Your task to perform on an android device: manage bookmarks in the chrome app Image 0: 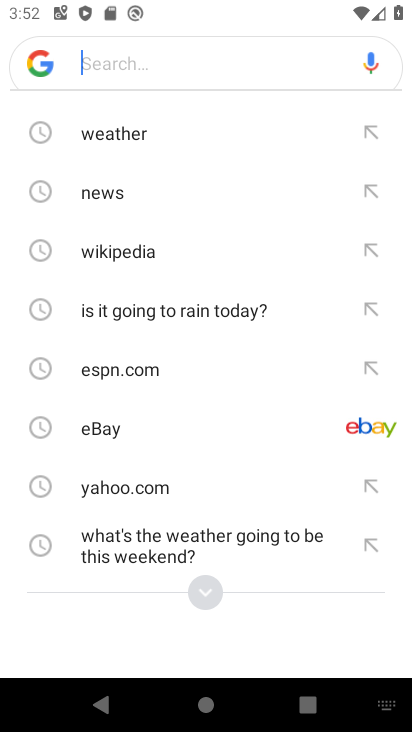
Step 0: drag from (195, 217) to (330, 392)
Your task to perform on an android device: manage bookmarks in the chrome app Image 1: 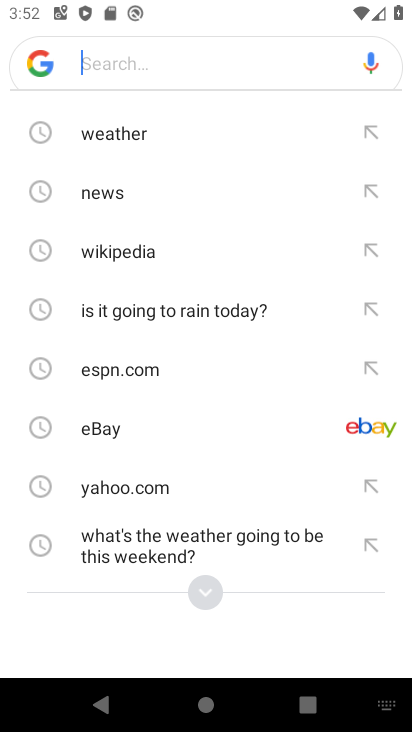
Step 1: press home button
Your task to perform on an android device: manage bookmarks in the chrome app Image 2: 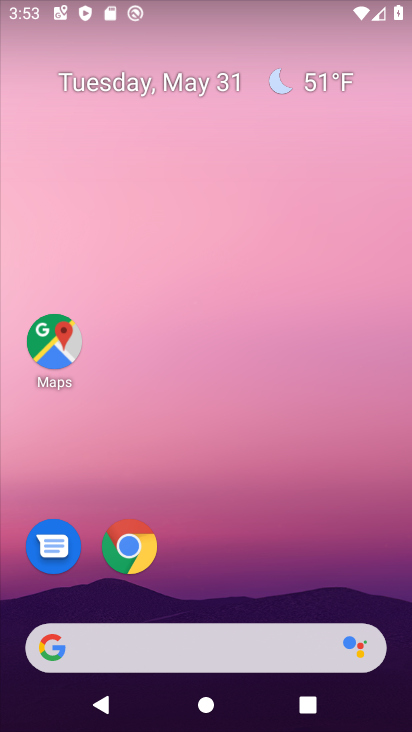
Step 2: click (126, 549)
Your task to perform on an android device: manage bookmarks in the chrome app Image 3: 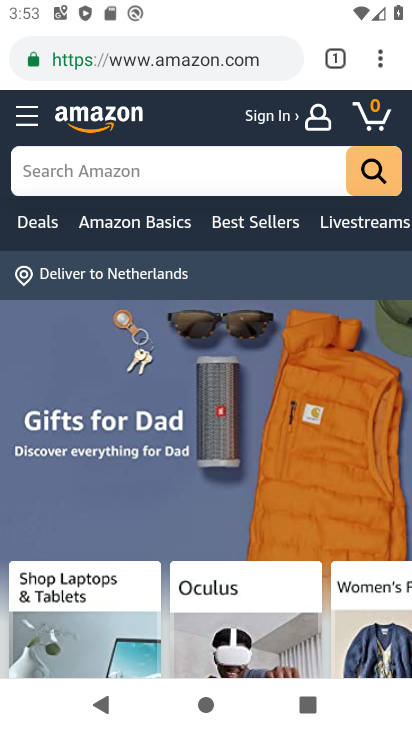
Step 3: click (383, 66)
Your task to perform on an android device: manage bookmarks in the chrome app Image 4: 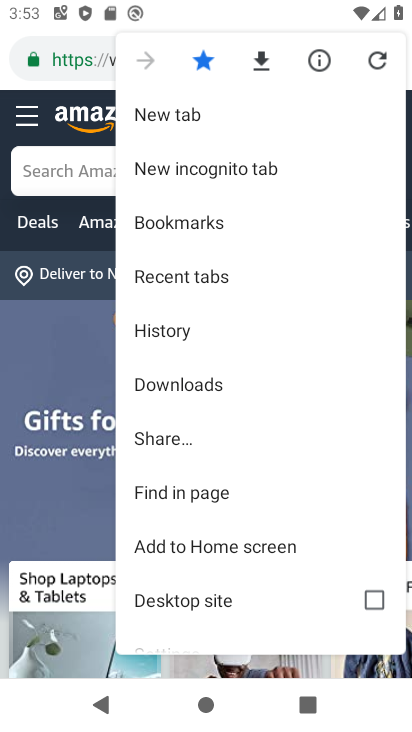
Step 4: click (163, 221)
Your task to perform on an android device: manage bookmarks in the chrome app Image 5: 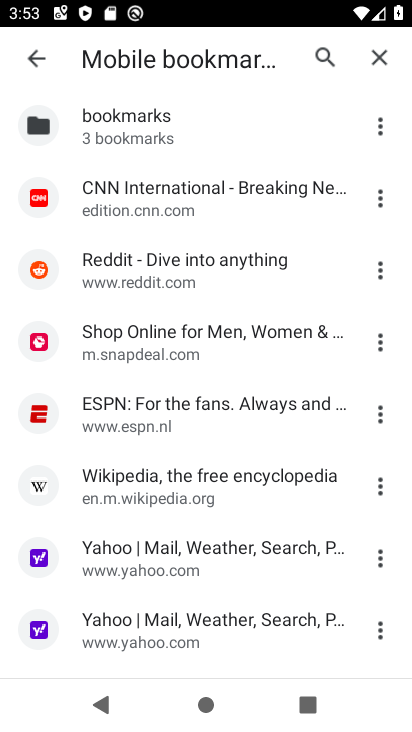
Step 5: click (381, 204)
Your task to perform on an android device: manage bookmarks in the chrome app Image 6: 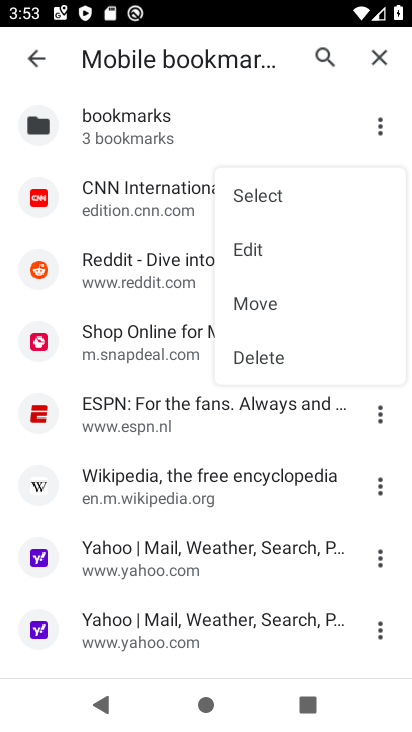
Step 6: click (289, 358)
Your task to perform on an android device: manage bookmarks in the chrome app Image 7: 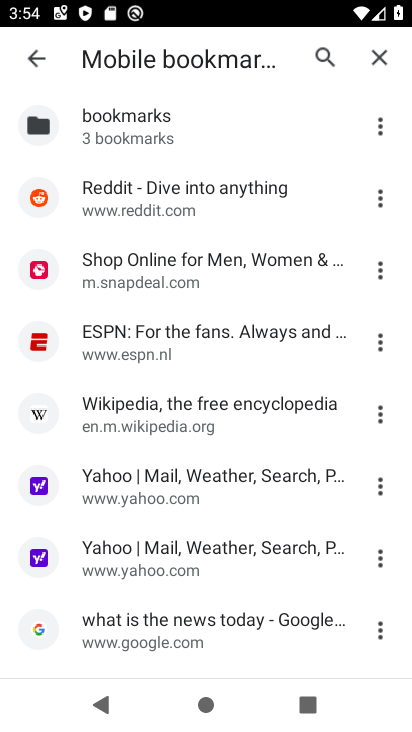
Step 7: click (380, 275)
Your task to perform on an android device: manage bookmarks in the chrome app Image 8: 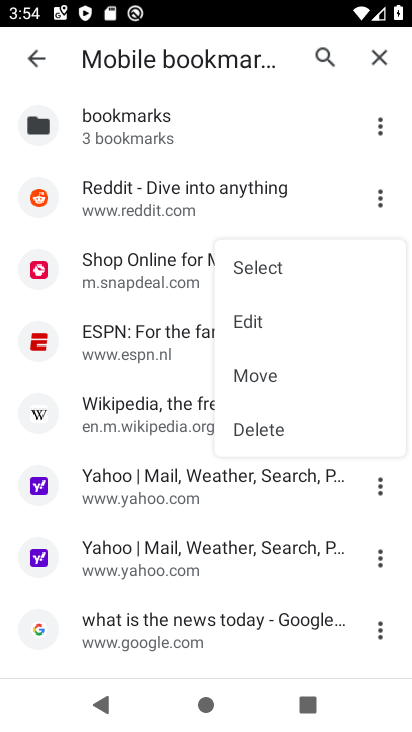
Step 8: click (262, 436)
Your task to perform on an android device: manage bookmarks in the chrome app Image 9: 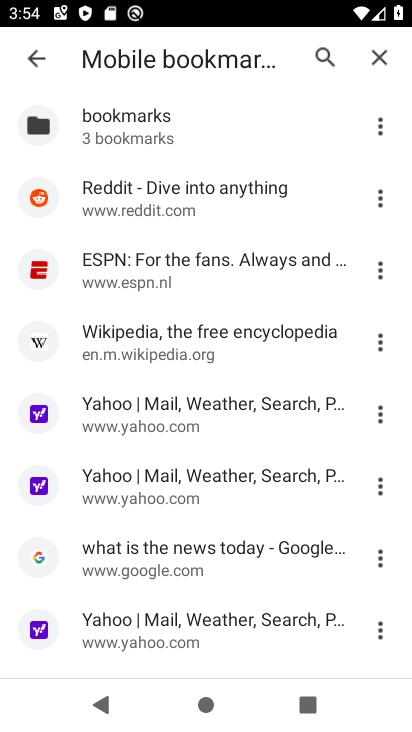
Step 9: task complete